Your task to perform on an android device: Do I have any events today? Image 0: 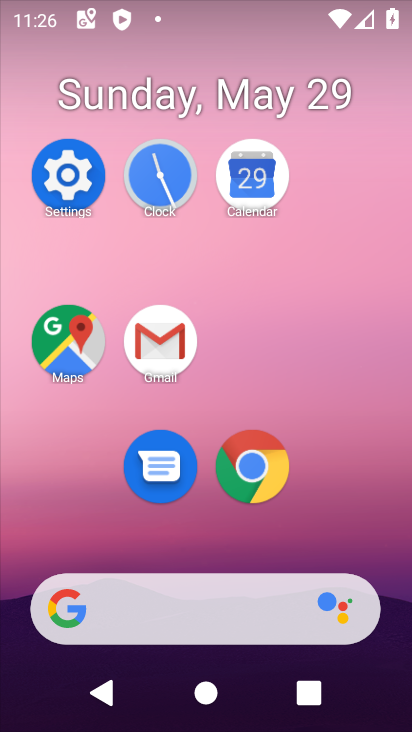
Step 0: click (261, 182)
Your task to perform on an android device: Do I have any events today? Image 1: 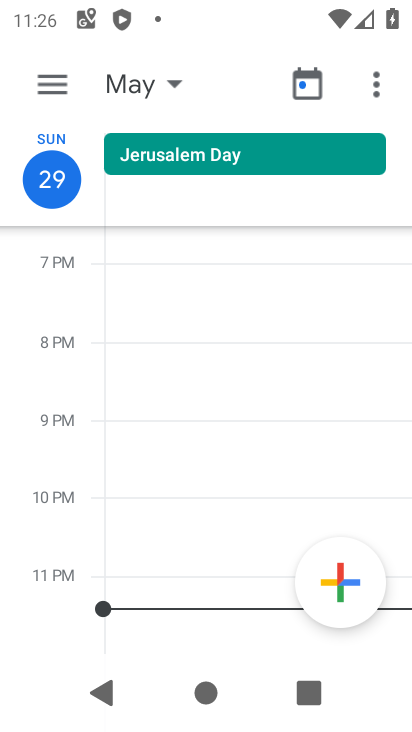
Step 1: task complete